Your task to perform on an android device: Is it going to rain today? Image 0: 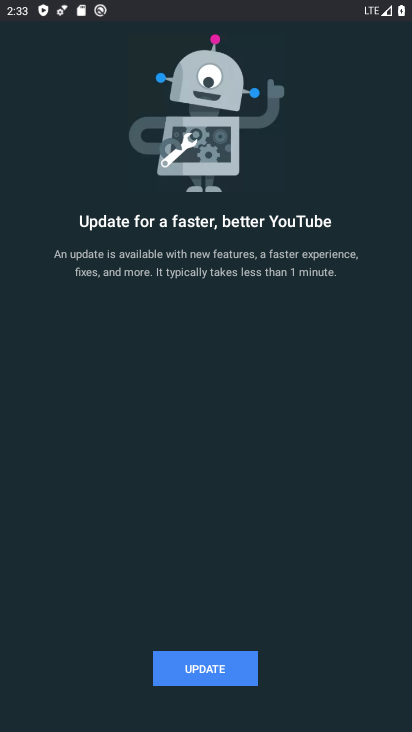
Step 0: press home button
Your task to perform on an android device: Is it going to rain today? Image 1: 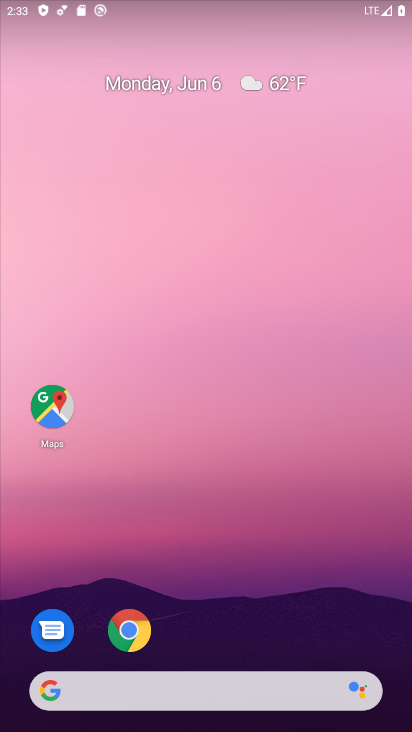
Step 1: drag from (311, 632) to (327, 127)
Your task to perform on an android device: Is it going to rain today? Image 2: 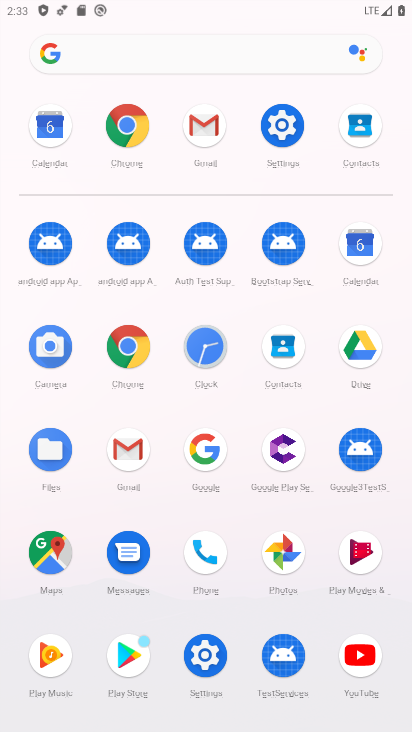
Step 2: click (135, 352)
Your task to perform on an android device: Is it going to rain today? Image 3: 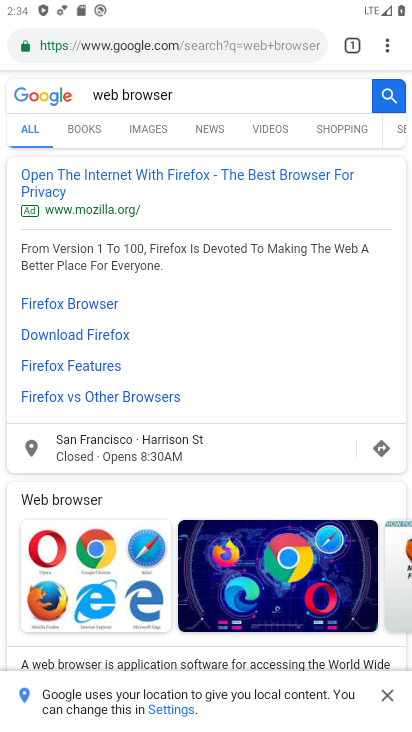
Step 3: click (268, 35)
Your task to perform on an android device: Is it going to rain today? Image 4: 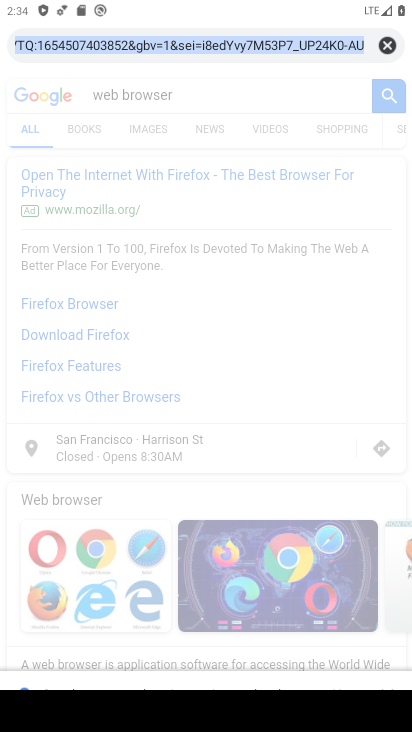
Step 4: type "Is it going to rain today?"
Your task to perform on an android device: Is it going to rain today? Image 5: 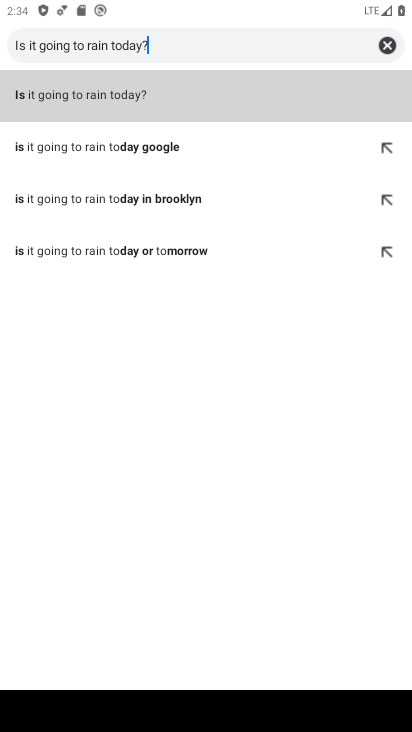
Step 5: click (228, 99)
Your task to perform on an android device: Is it going to rain today? Image 6: 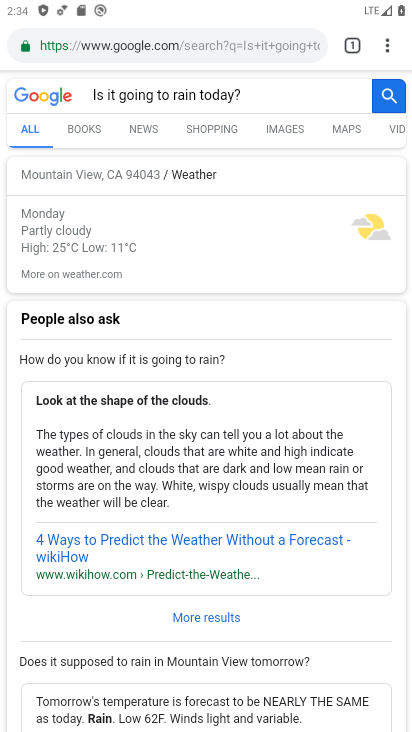
Step 6: task complete